Your task to perform on an android device: refresh tabs in the chrome app Image 0: 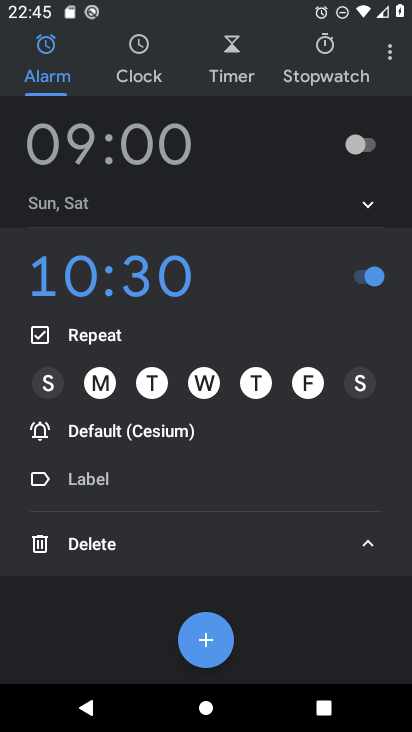
Step 0: press home button
Your task to perform on an android device: refresh tabs in the chrome app Image 1: 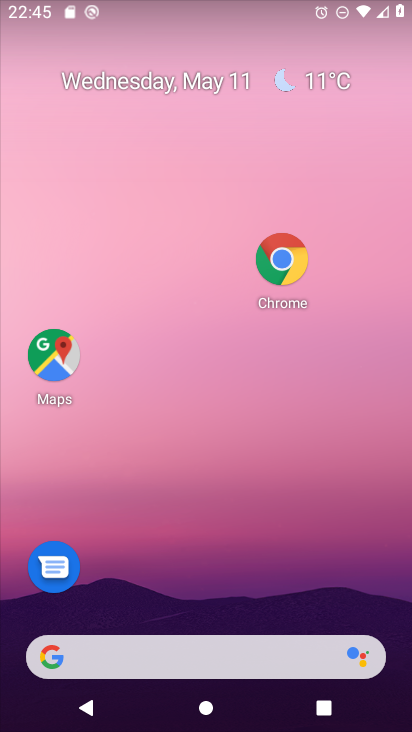
Step 1: drag from (161, 673) to (307, 139)
Your task to perform on an android device: refresh tabs in the chrome app Image 2: 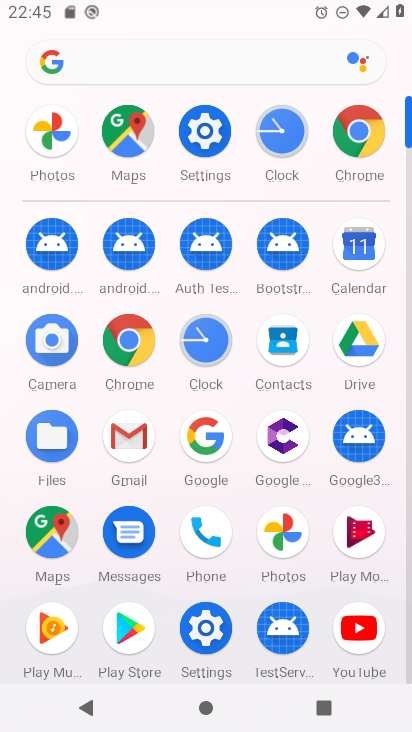
Step 2: click (353, 136)
Your task to perform on an android device: refresh tabs in the chrome app Image 3: 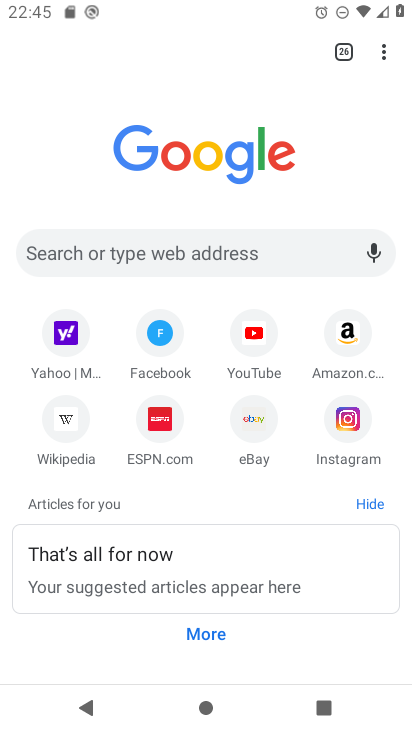
Step 3: click (381, 65)
Your task to perform on an android device: refresh tabs in the chrome app Image 4: 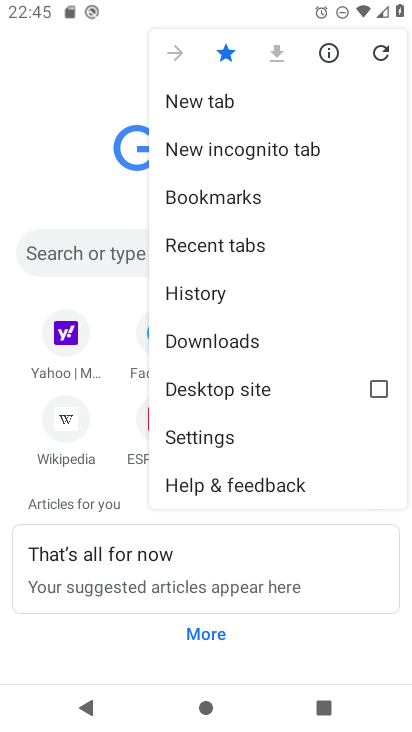
Step 4: click (381, 56)
Your task to perform on an android device: refresh tabs in the chrome app Image 5: 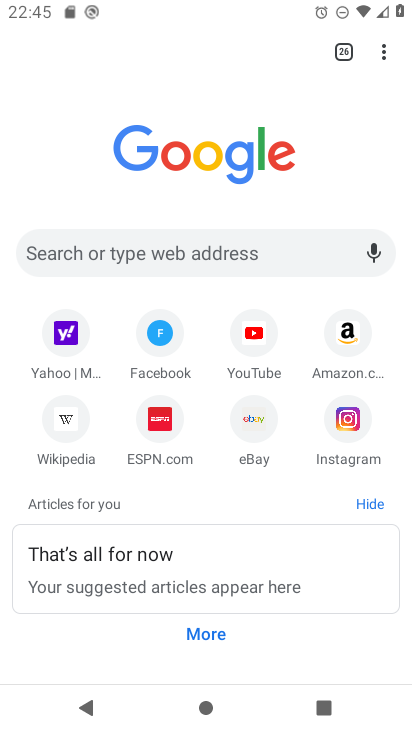
Step 5: task complete